Your task to perform on an android device: install app "VLC for Android" Image 0: 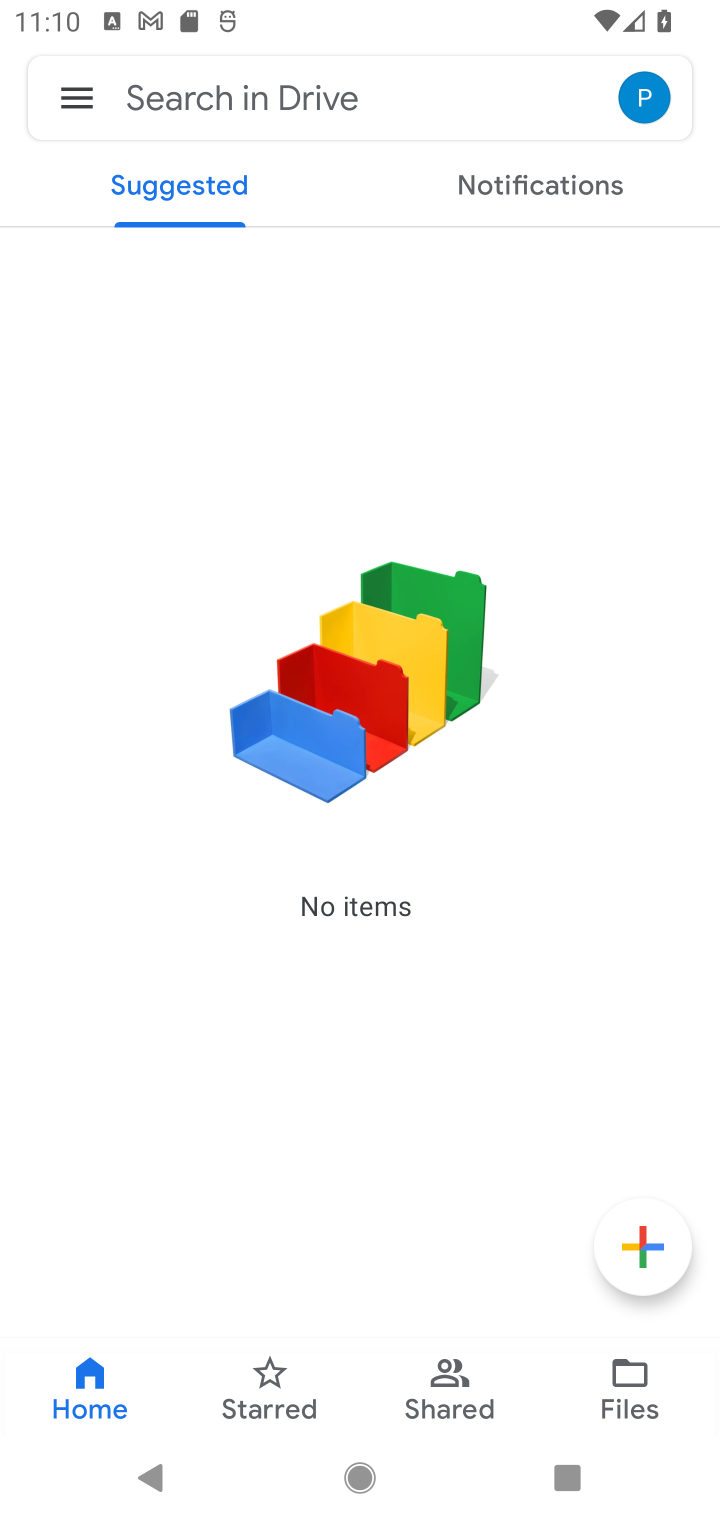
Step 0: press home button
Your task to perform on an android device: install app "VLC for Android" Image 1: 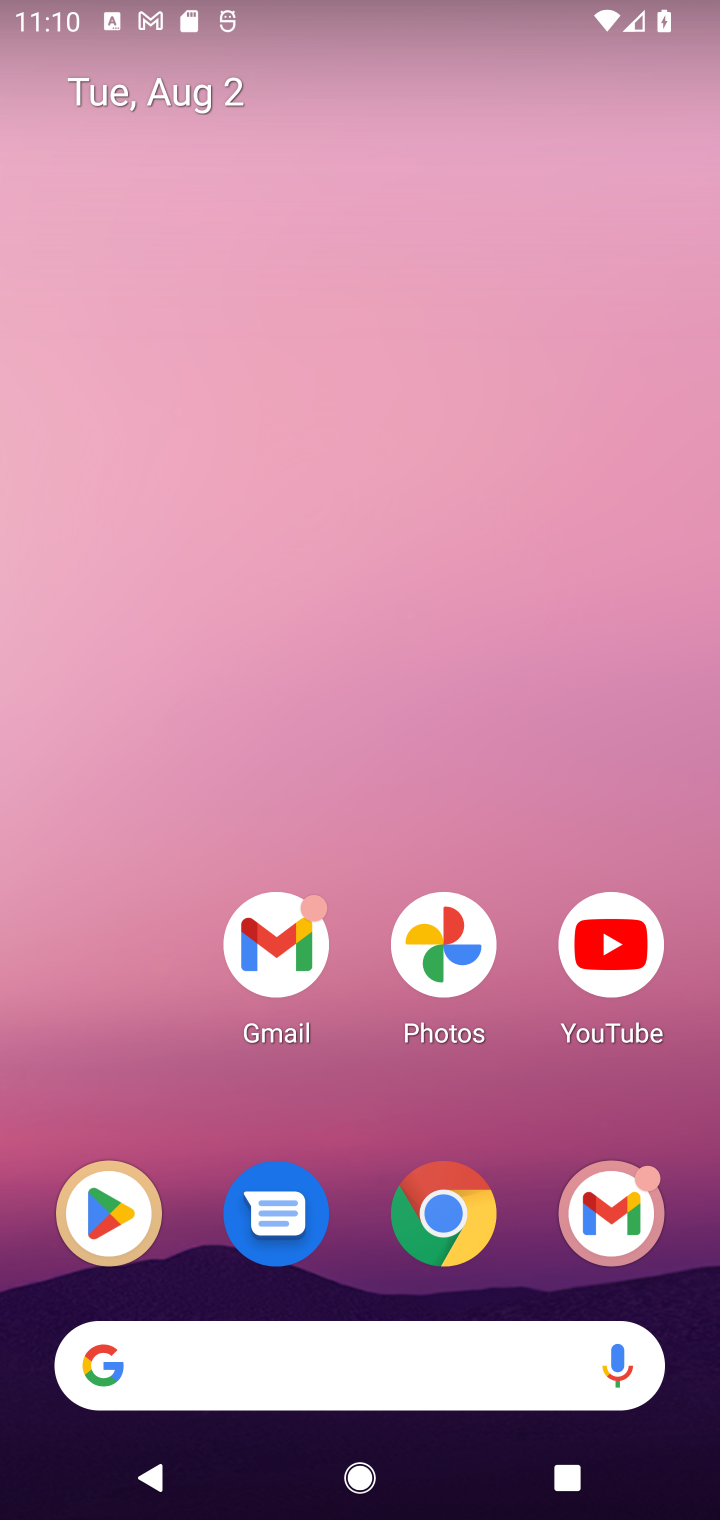
Step 1: click (101, 1222)
Your task to perform on an android device: install app "VLC for Android" Image 2: 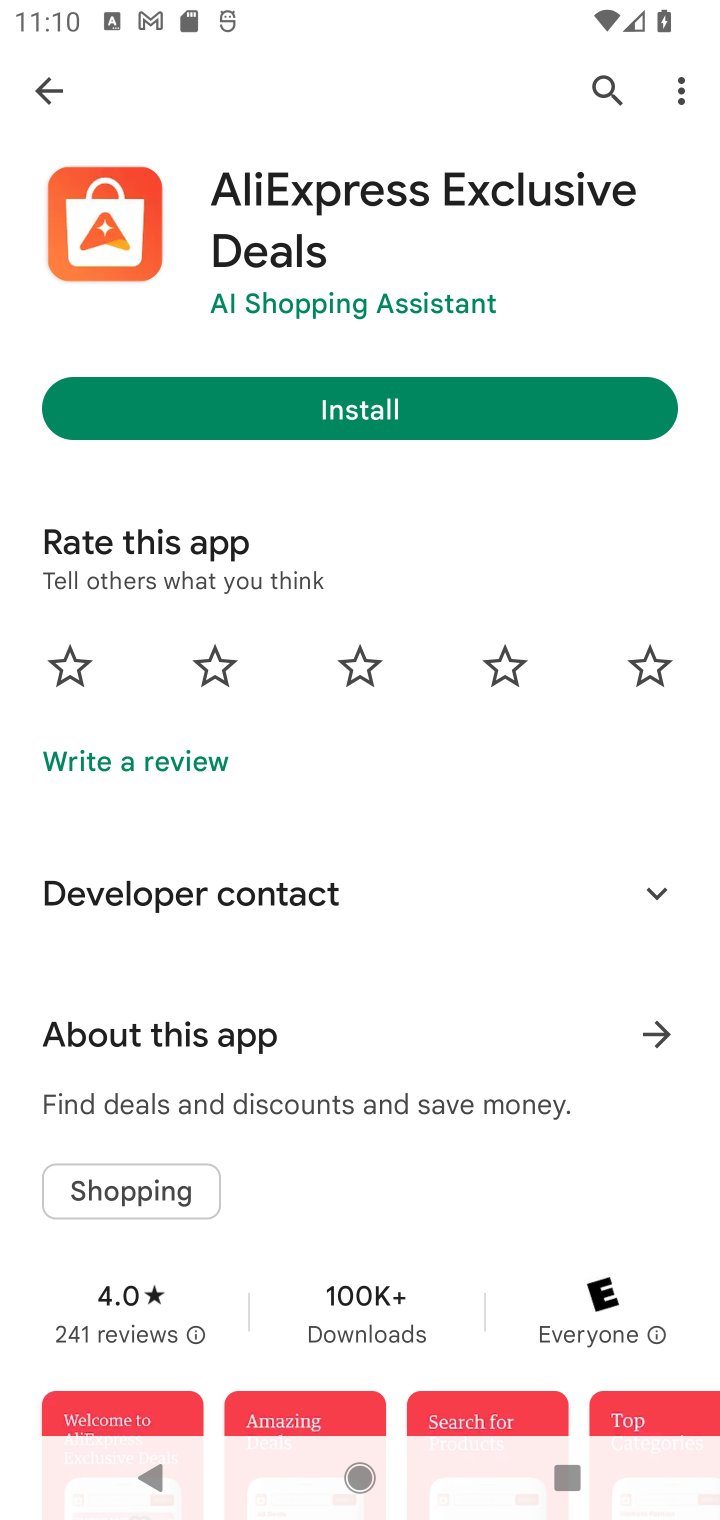
Step 2: click (44, 79)
Your task to perform on an android device: install app "VLC for Android" Image 3: 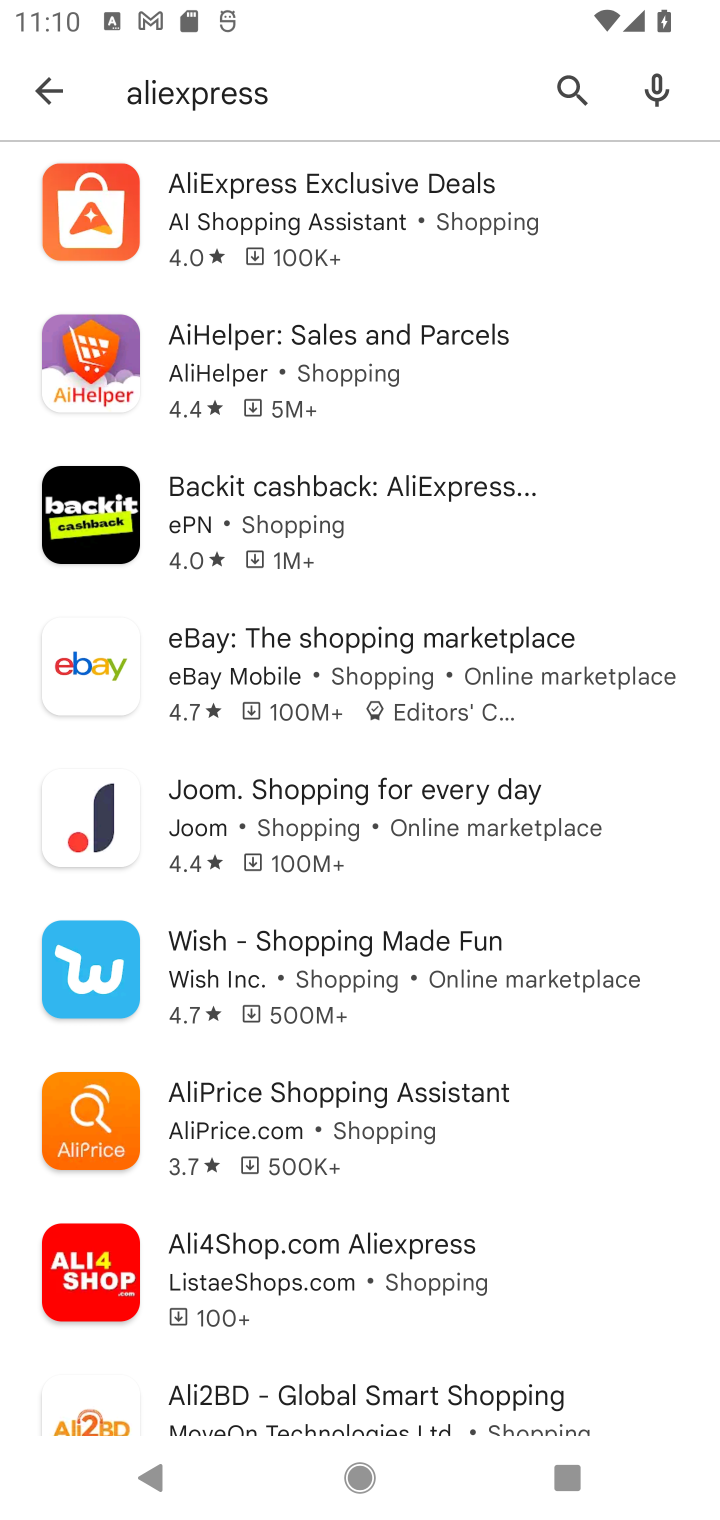
Step 3: click (41, 91)
Your task to perform on an android device: install app "VLC for Android" Image 4: 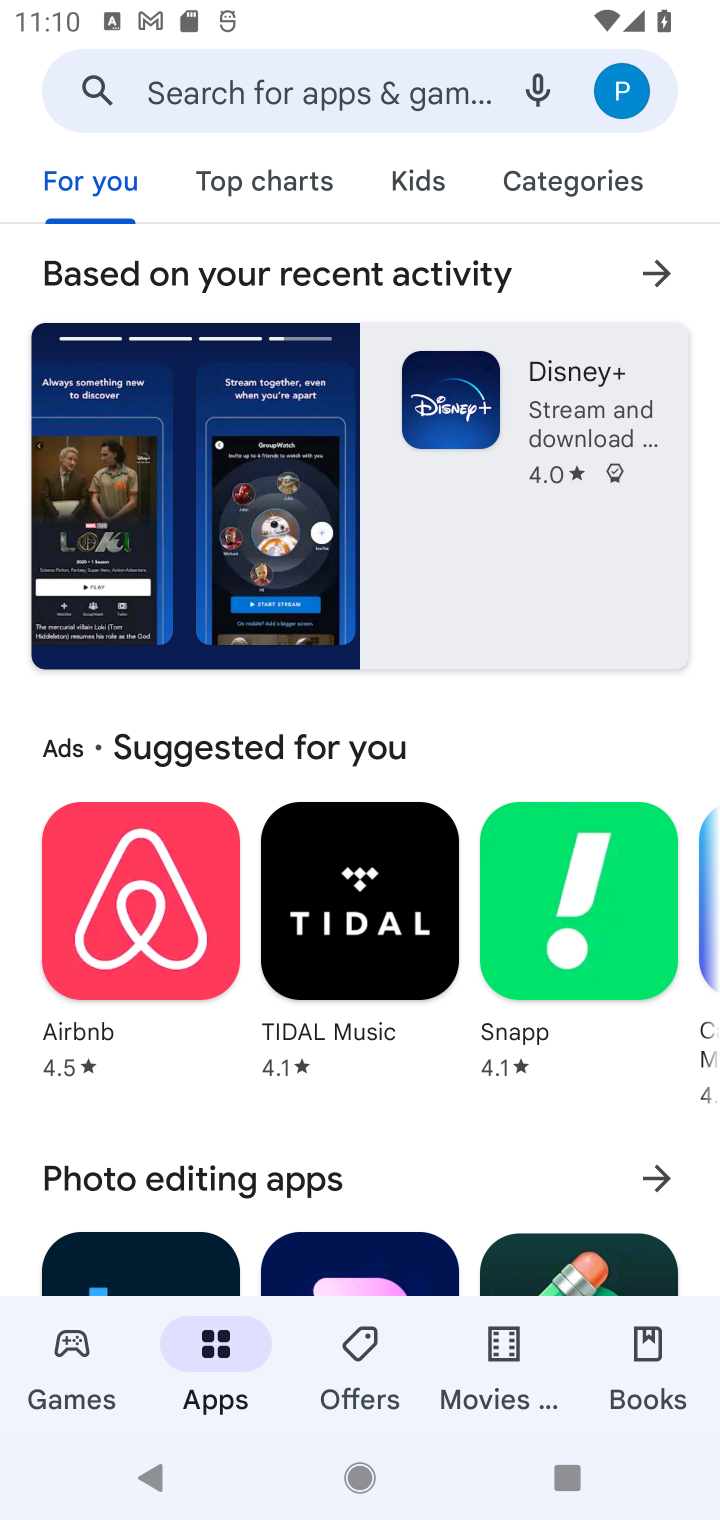
Step 4: click (135, 97)
Your task to perform on an android device: install app "VLC for Android" Image 5: 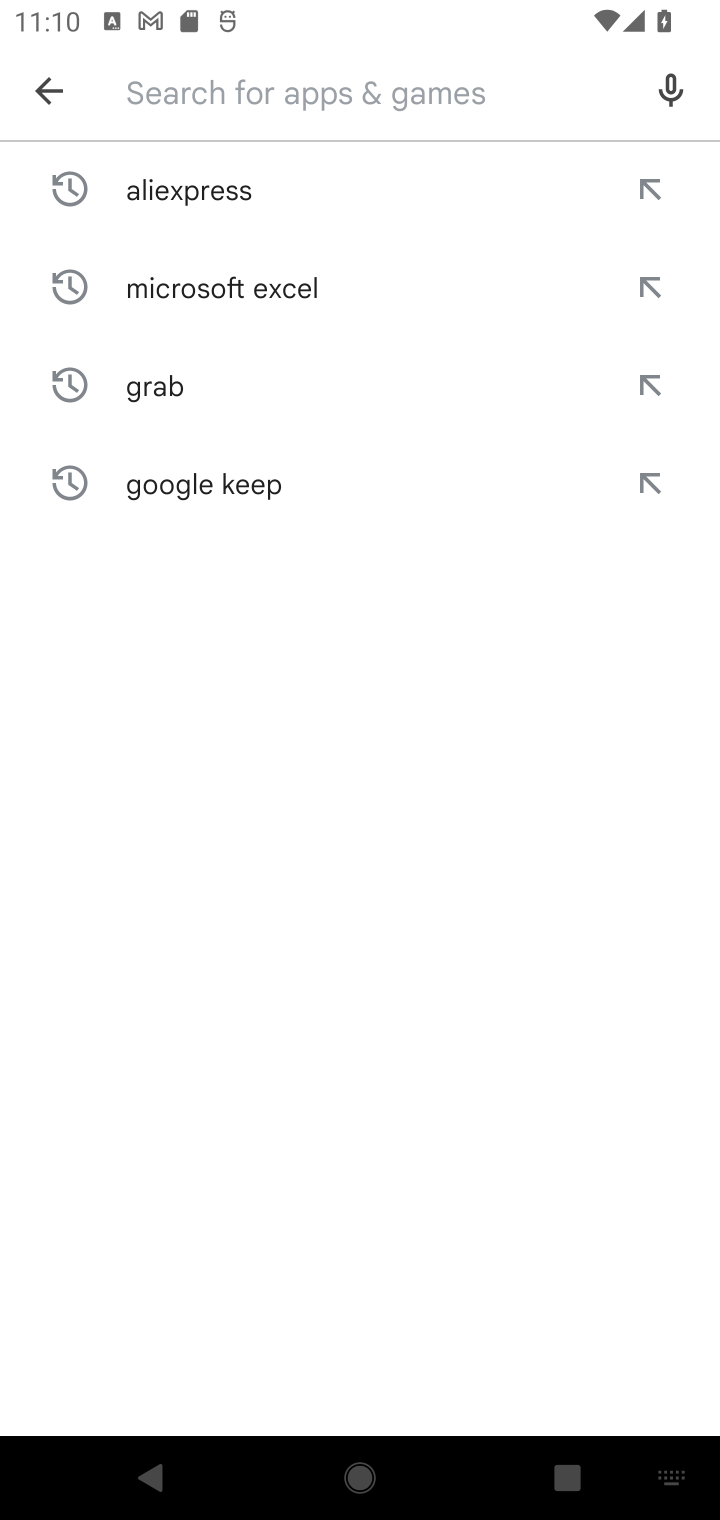
Step 5: type "VLC for Android"
Your task to perform on an android device: install app "VLC for Android" Image 6: 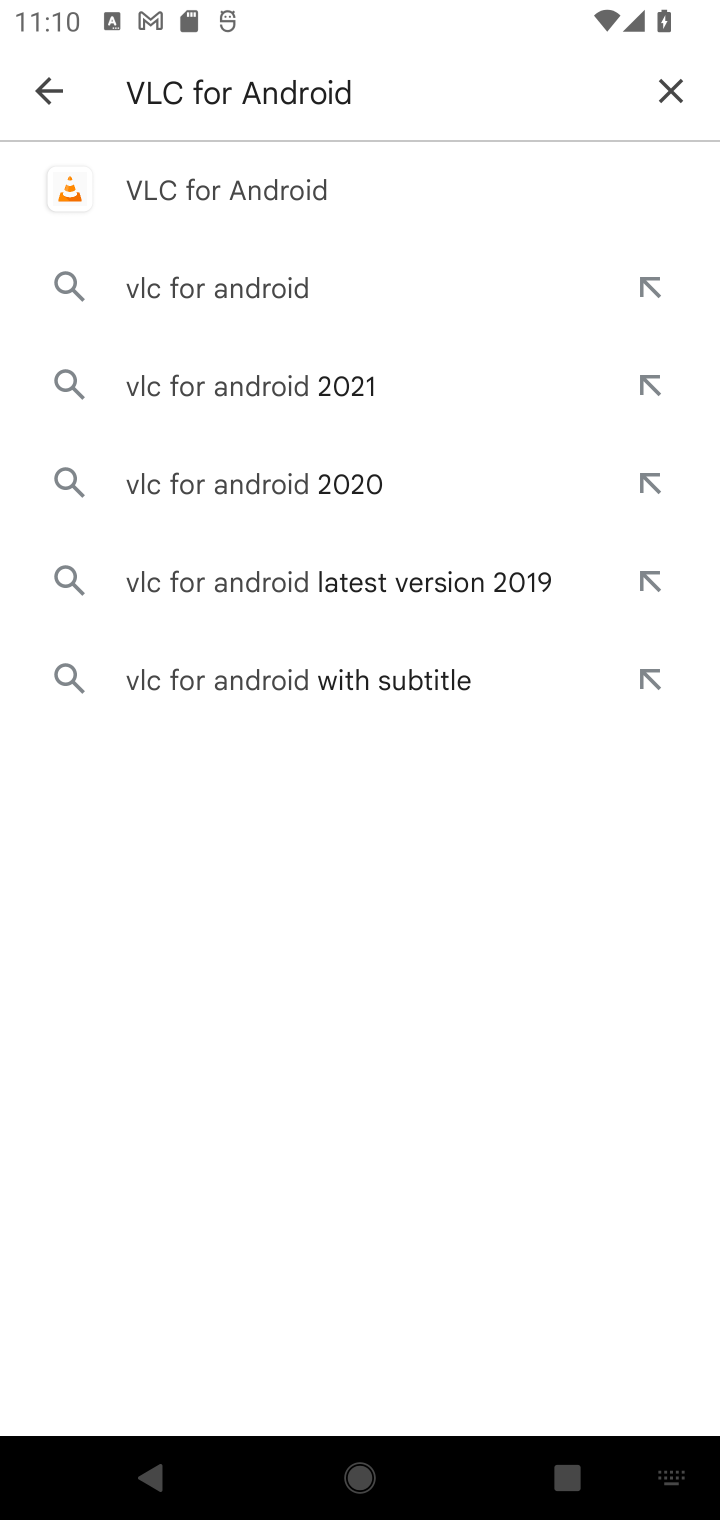
Step 6: click (230, 192)
Your task to perform on an android device: install app "VLC for Android" Image 7: 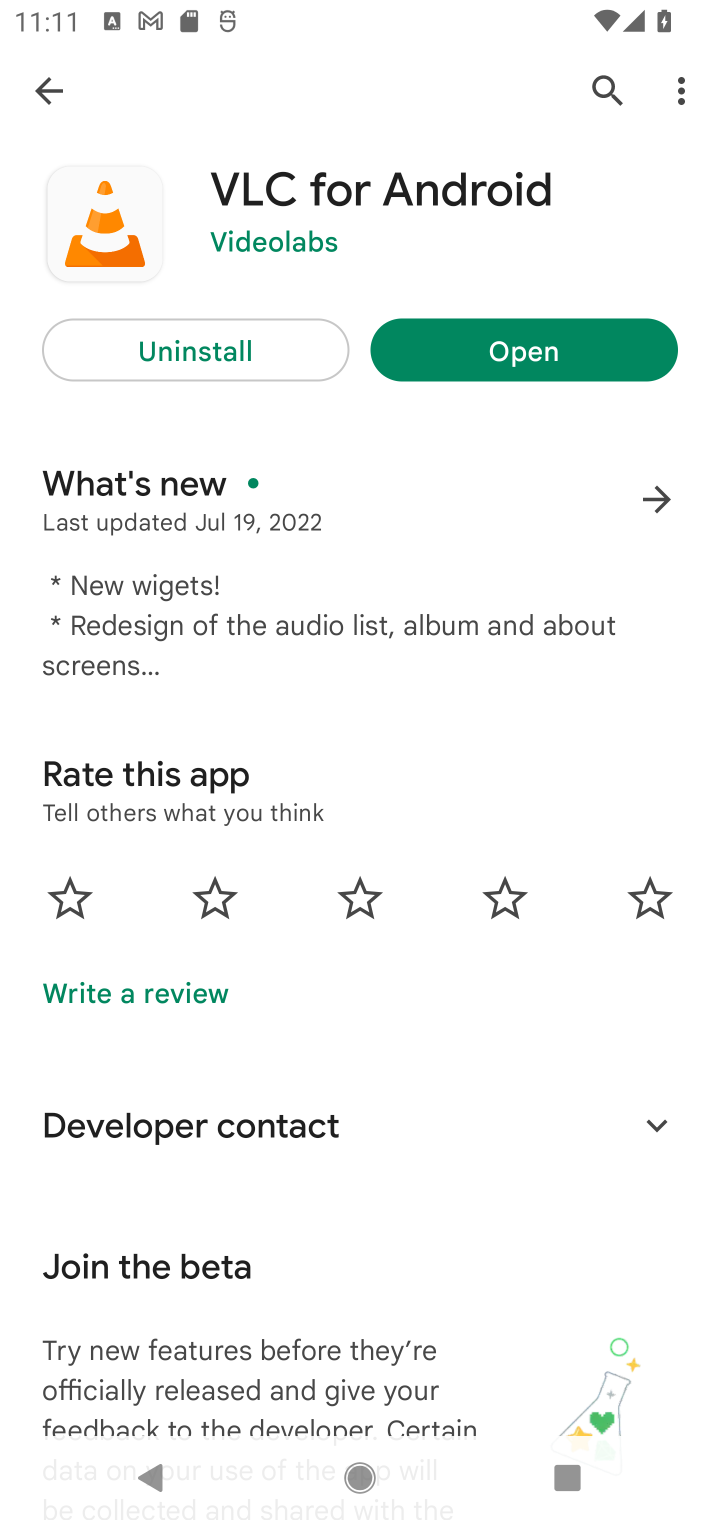
Step 7: click (519, 355)
Your task to perform on an android device: install app "VLC for Android" Image 8: 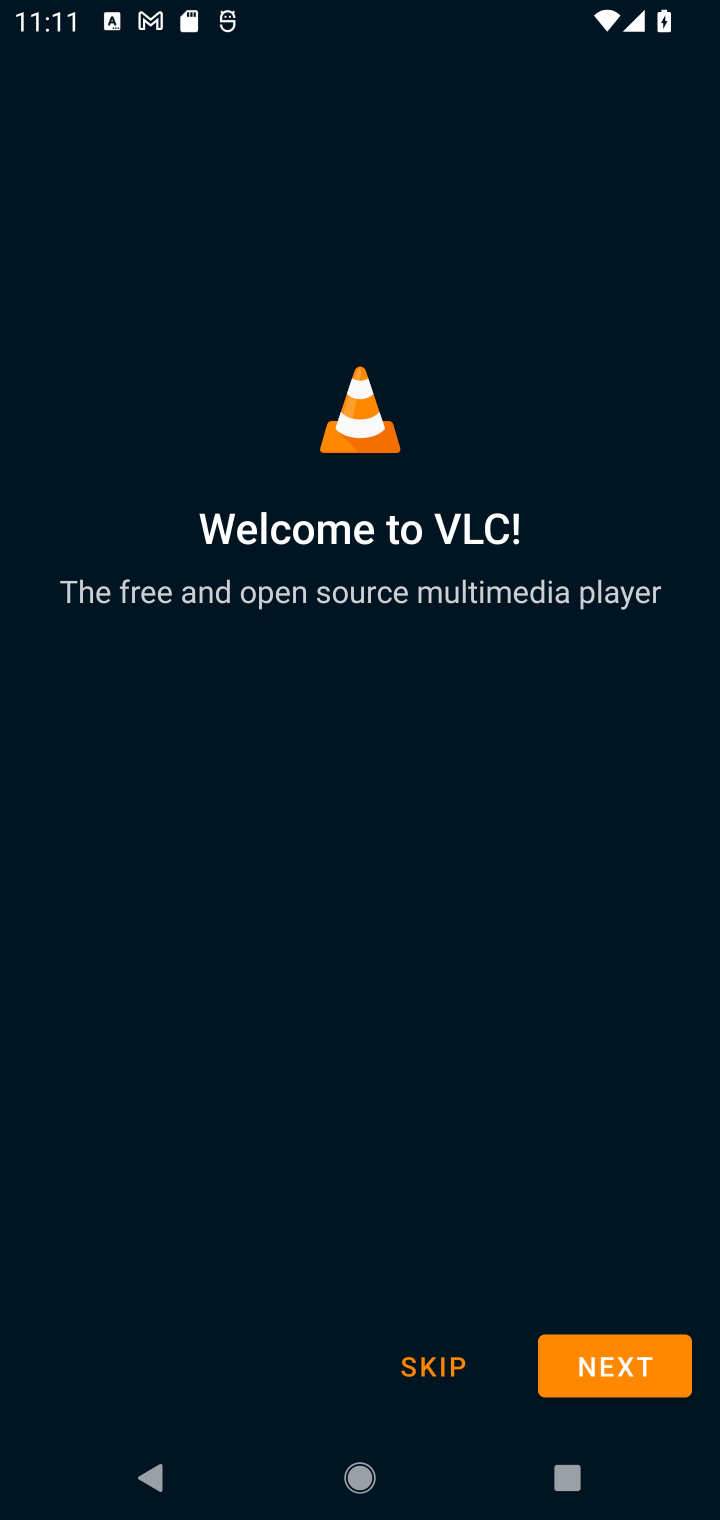
Step 8: task complete